Your task to perform on an android device: change notification settings in the gmail app Image 0: 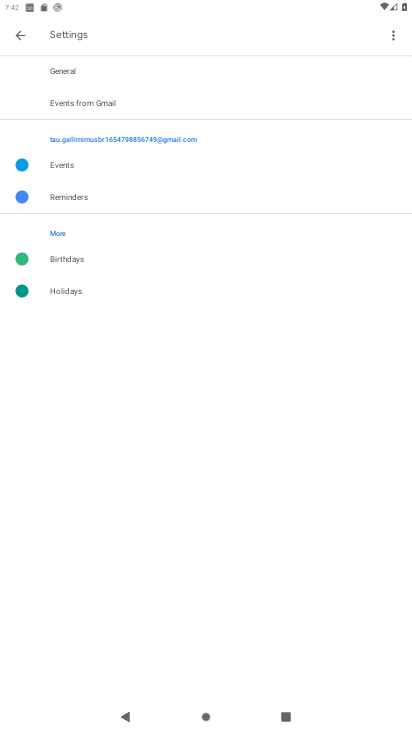
Step 0: press home button
Your task to perform on an android device: change notification settings in the gmail app Image 1: 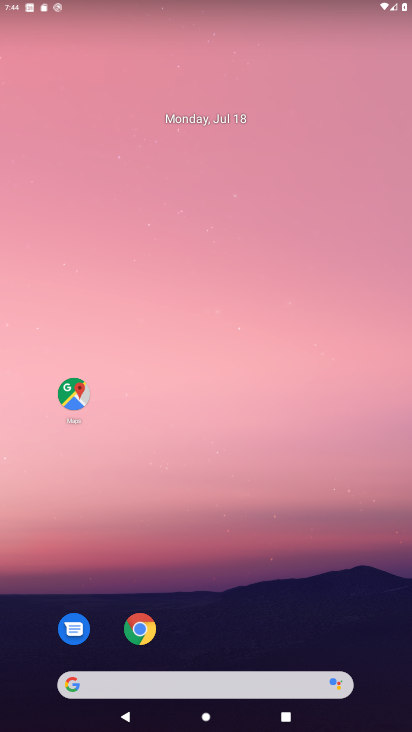
Step 1: drag from (66, 495) to (228, 112)
Your task to perform on an android device: change notification settings in the gmail app Image 2: 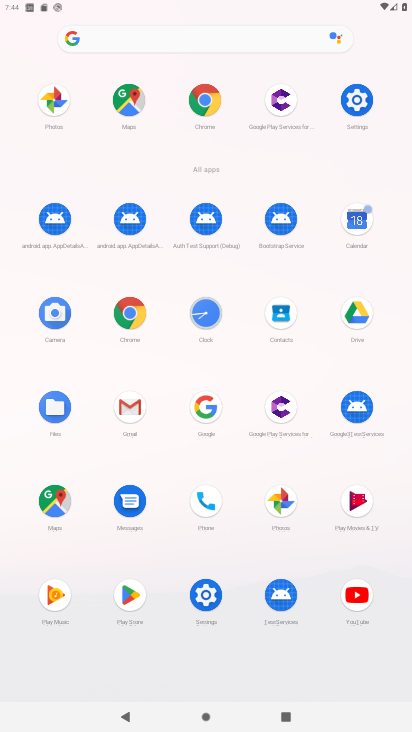
Step 2: click (211, 607)
Your task to perform on an android device: change notification settings in the gmail app Image 3: 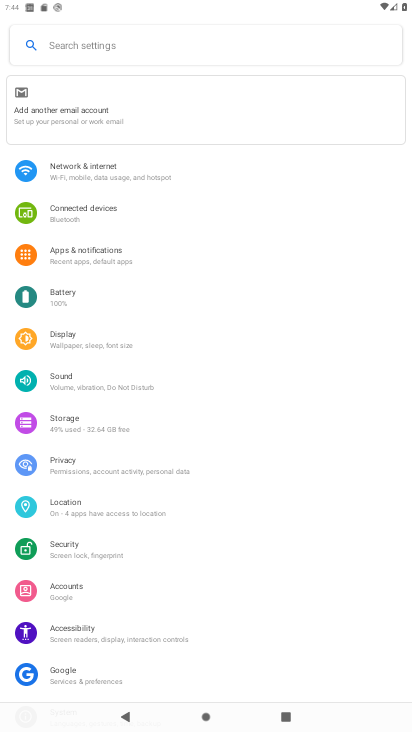
Step 3: press home button
Your task to perform on an android device: change notification settings in the gmail app Image 4: 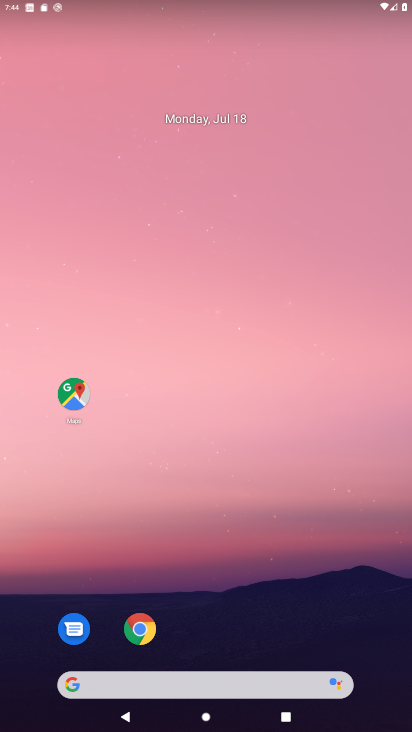
Step 4: drag from (232, 163) to (262, 103)
Your task to perform on an android device: change notification settings in the gmail app Image 5: 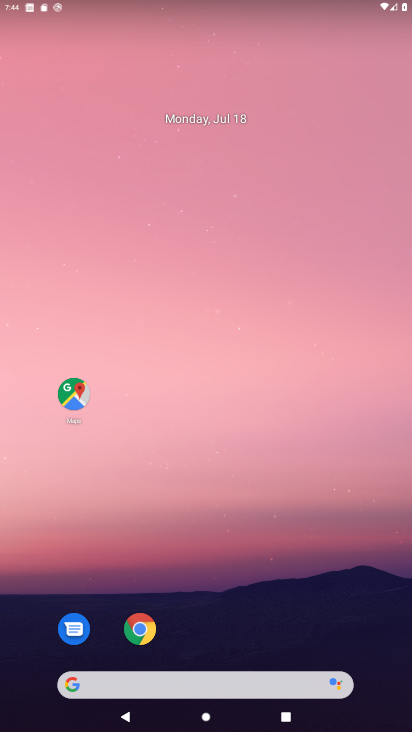
Step 5: drag from (57, 433) to (173, 81)
Your task to perform on an android device: change notification settings in the gmail app Image 6: 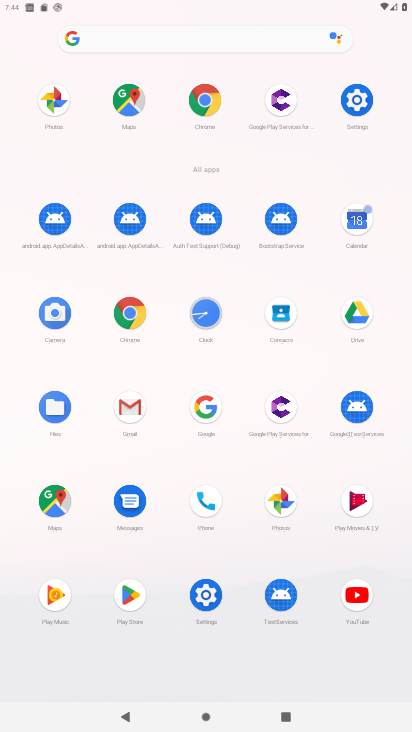
Step 6: click (116, 409)
Your task to perform on an android device: change notification settings in the gmail app Image 7: 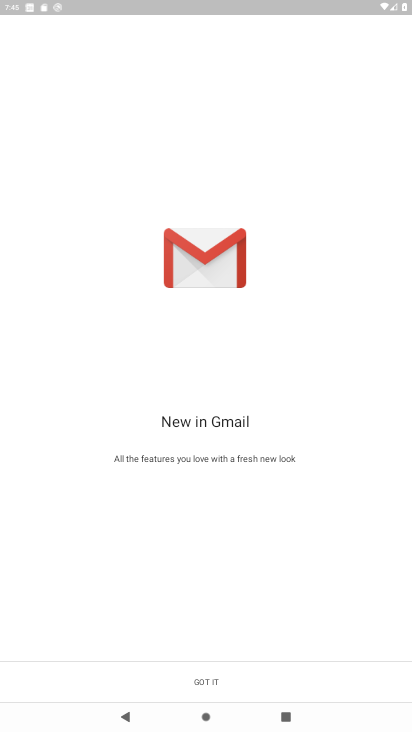
Step 7: click (187, 678)
Your task to perform on an android device: change notification settings in the gmail app Image 8: 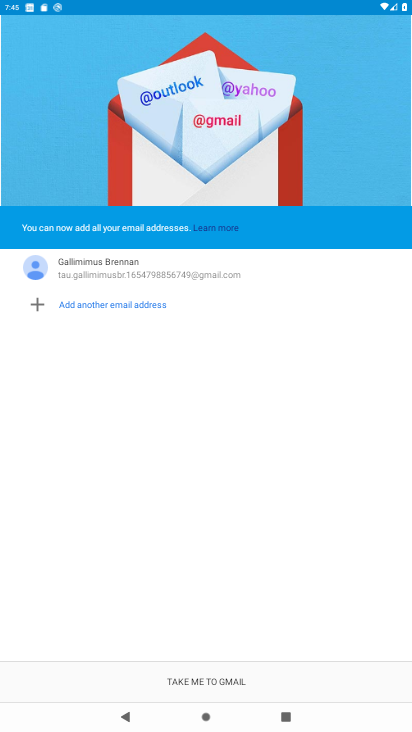
Step 8: click (192, 692)
Your task to perform on an android device: change notification settings in the gmail app Image 9: 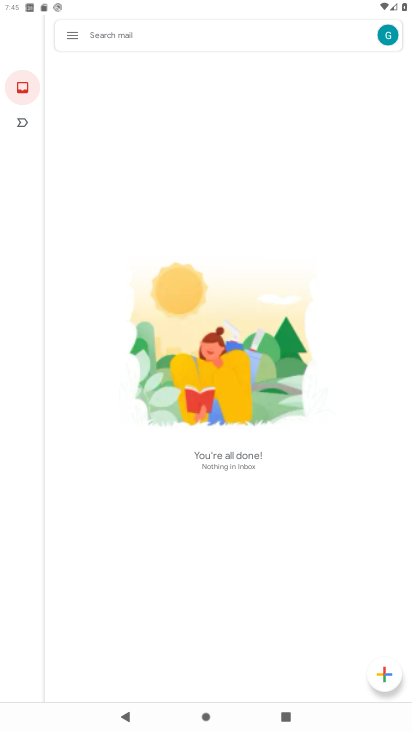
Step 9: click (21, 34)
Your task to perform on an android device: change notification settings in the gmail app Image 10: 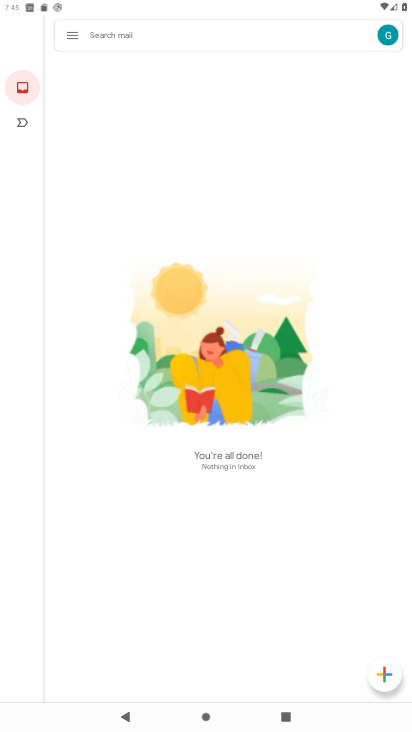
Step 10: click (71, 38)
Your task to perform on an android device: change notification settings in the gmail app Image 11: 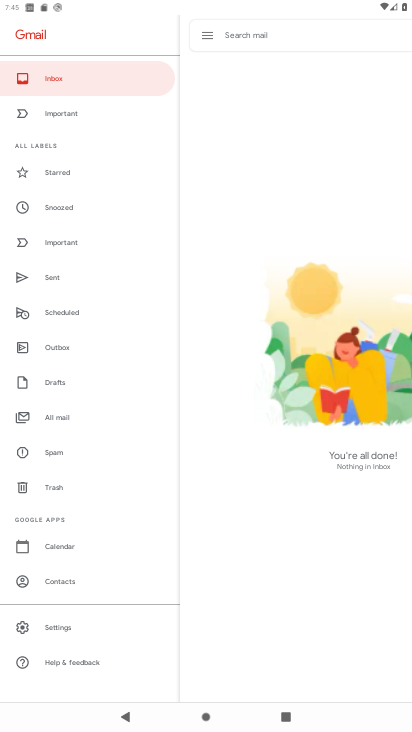
Step 11: click (82, 633)
Your task to perform on an android device: change notification settings in the gmail app Image 12: 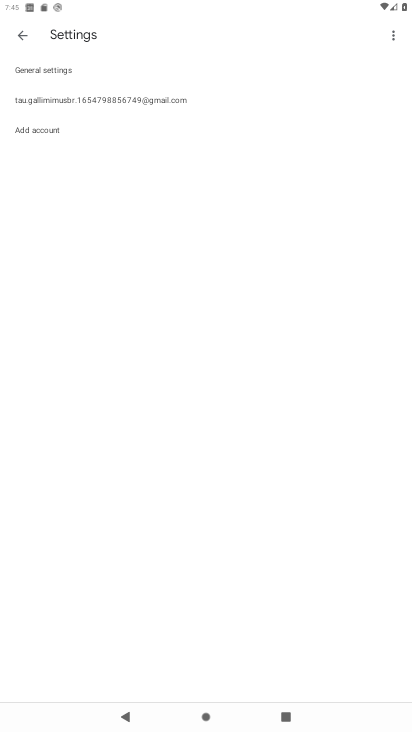
Step 12: click (76, 97)
Your task to perform on an android device: change notification settings in the gmail app Image 13: 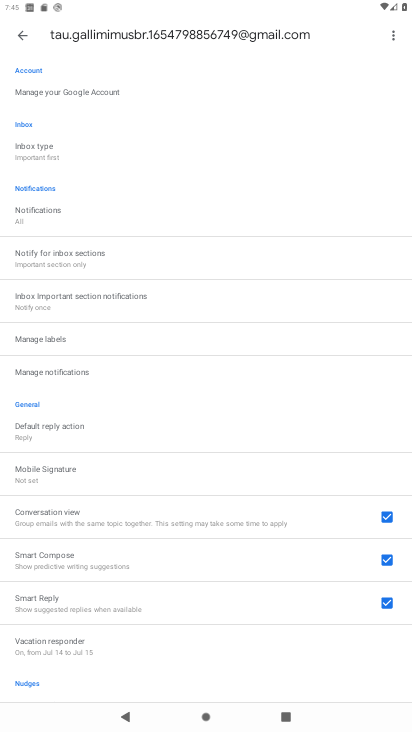
Step 13: click (43, 378)
Your task to perform on an android device: change notification settings in the gmail app Image 14: 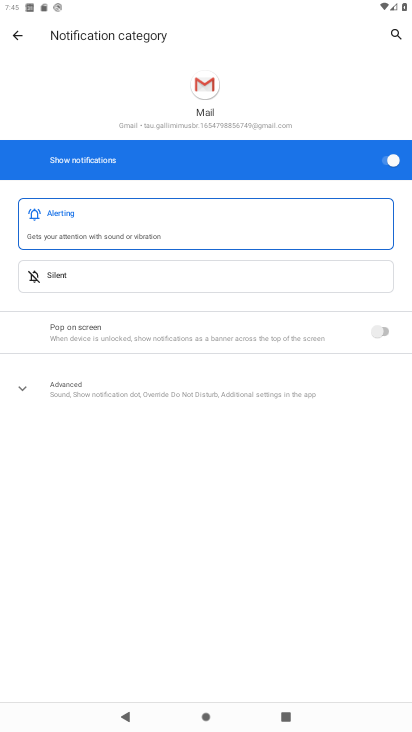
Step 14: click (384, 161)
Your task to perform on an android device: change notification settings in the gmail app Image 15: 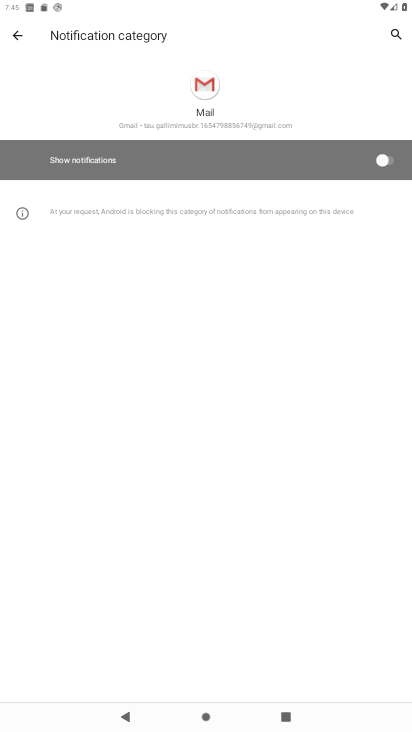
Step 15: task complete